Your task to perform on an android device: Go to display settings Image 0: 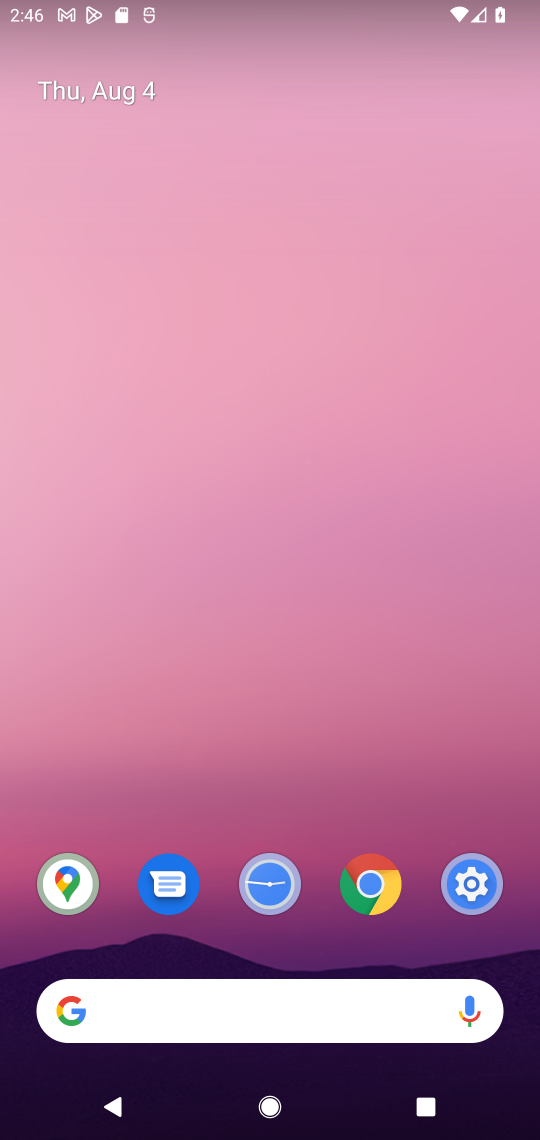
Step 0: click (486, 871)
Your task to perform on an android device: Go to display settings Image 1: 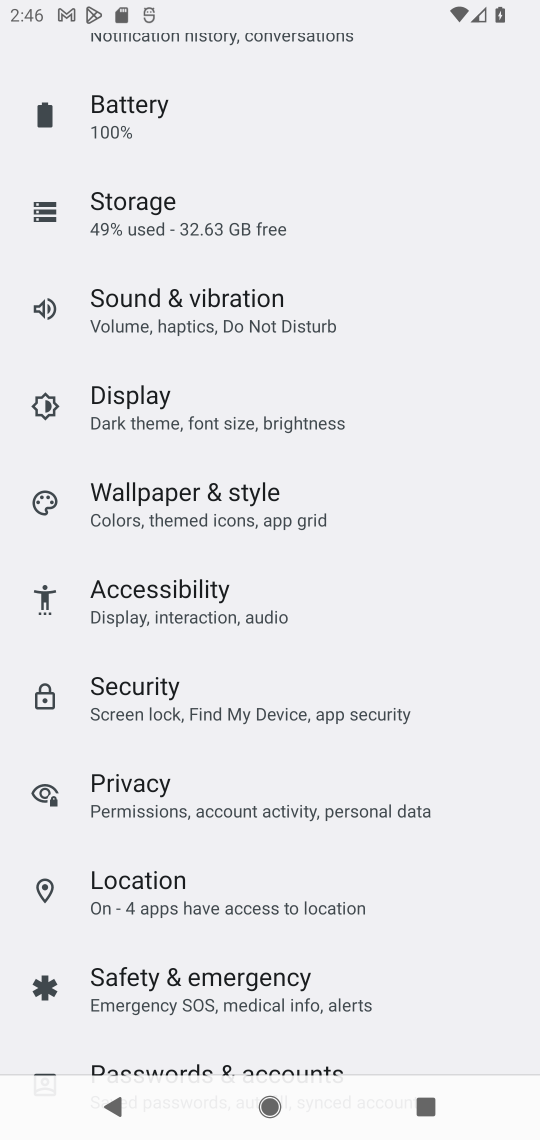
Step 1: click (216, 417)
Your task to perform on an android device: Go to display settings Image 2: 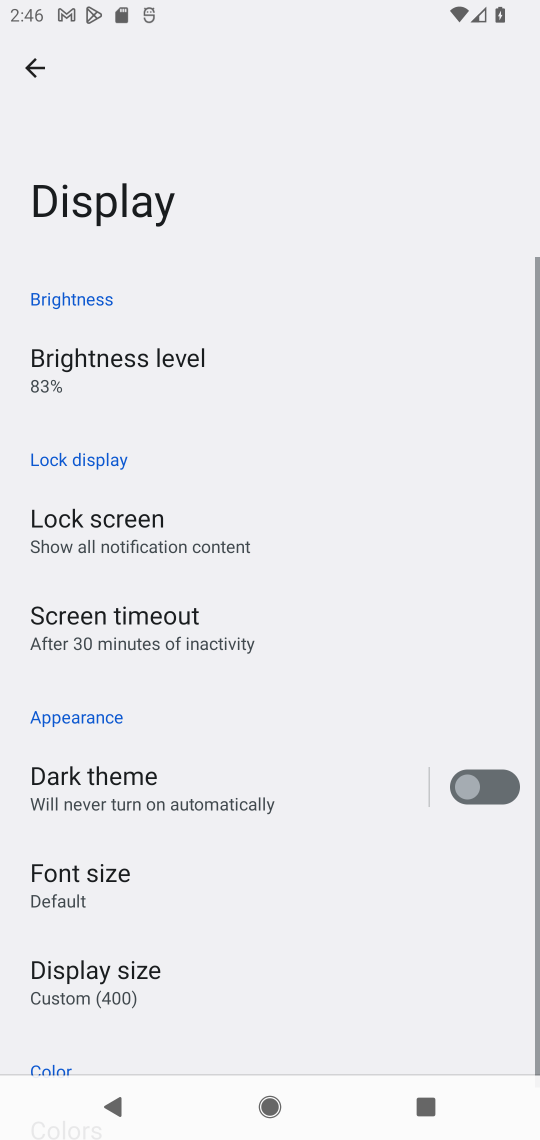
Step 2: task complete